Your task to perform on an android device: Open Chrome and go to the settings page Image 0: 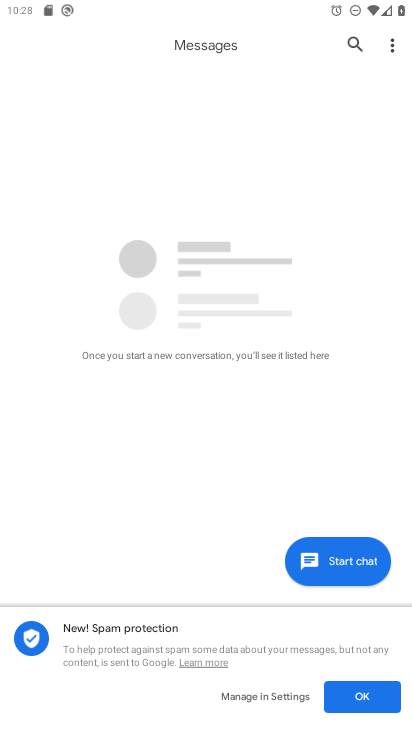
Step 0: press home button
Your task to perform on an android device: Open Chrome and go to the settings page Image 1: 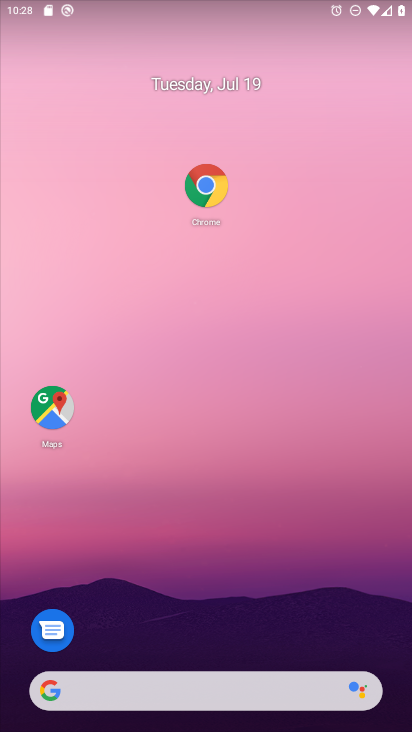
Step 1: drag from (275, 507) to (374, 202)
Your task to perform on an android device: Open Chrome and go to the settings page Image 2: 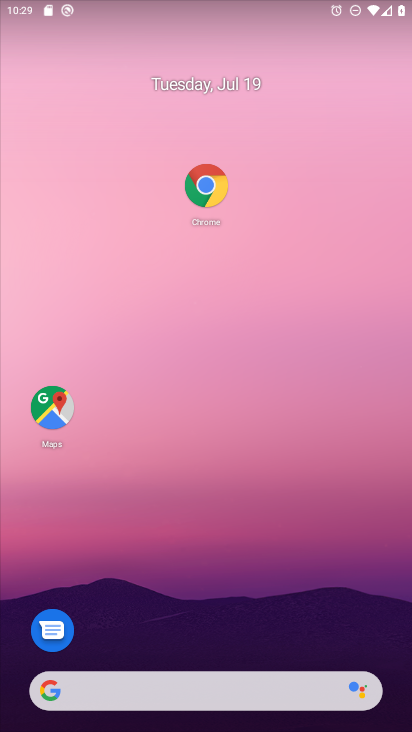
Step 2: drag from (237, 640) to (235, 135)
Your task to perform on an android device: Open Chrome and go to the settings page Image 3: 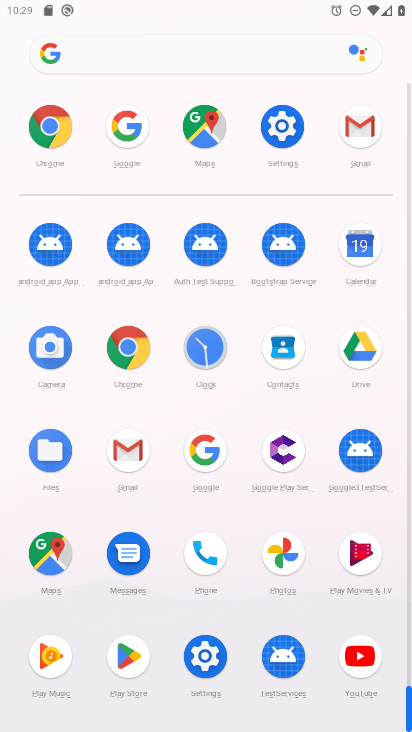
Step 3: click (141, 357)
Your task to perform on an android device: Open Chrome and go to the settings page Image 4: 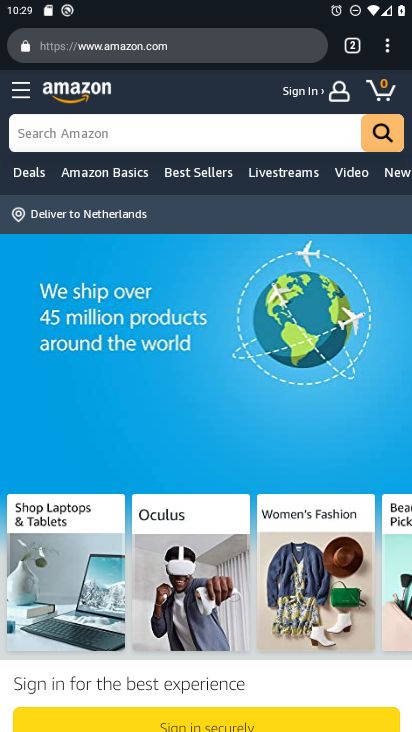
Step 4: click (390, 48)
Your task to perform on an android device: Open Chrome and go to the settings page Image 5: 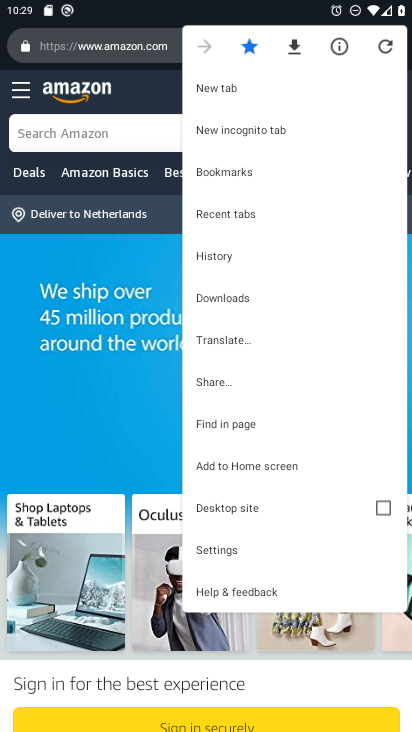
Step 5: click (219, 546)
Your task to perform on an android device: Open Chrome and go to the settings page Image 6: 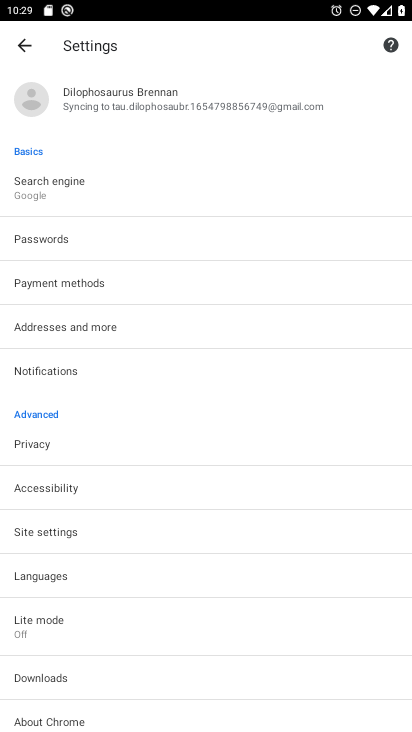
Step 6: task complete